Your task to perform on an android device: turn notification dots on Image 0: 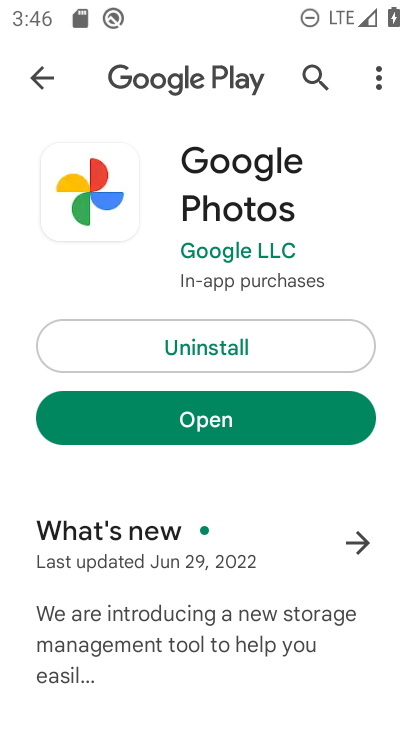
Step 0: press home button
Your task to perform on an android device: turn notification dots on Image 1: 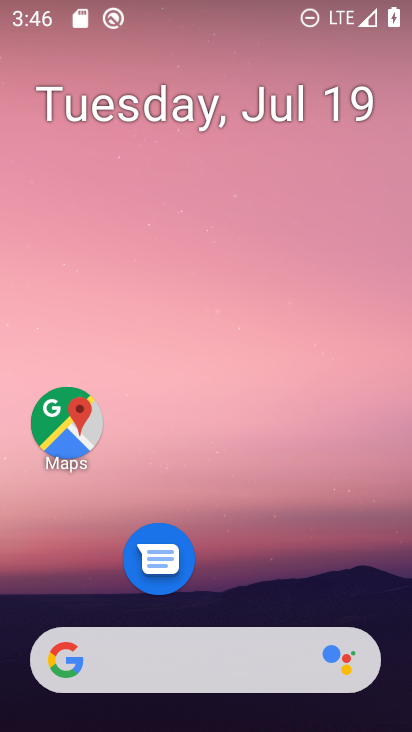
Step 1: drag from (189, 643) to (301, 288)
Your task to perform on an android device: turn notification dots on Image 2: 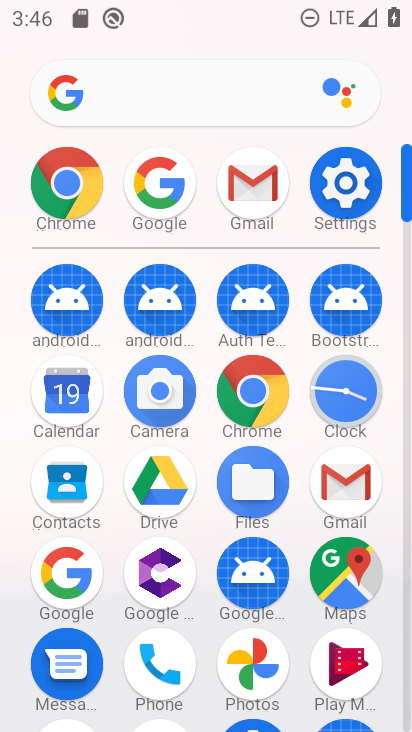
Step 2: click (332, 197)
Your task to perform on an android device: turn notification dots on Image 3: 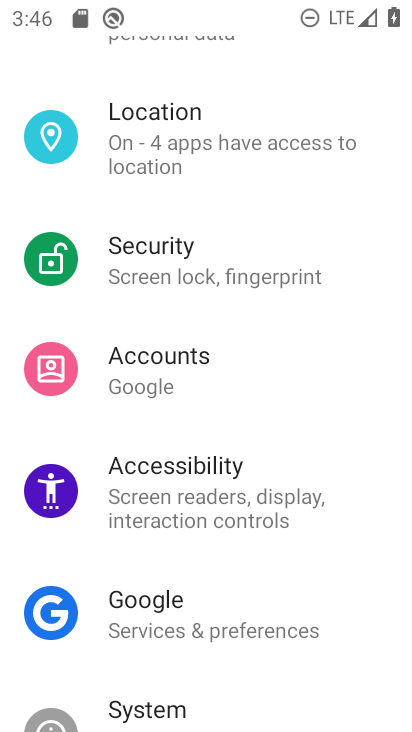
Step 3: drag from (202, 217) to (228, 690)
Your task to perform on an android device: turn notification dots on Image 4: 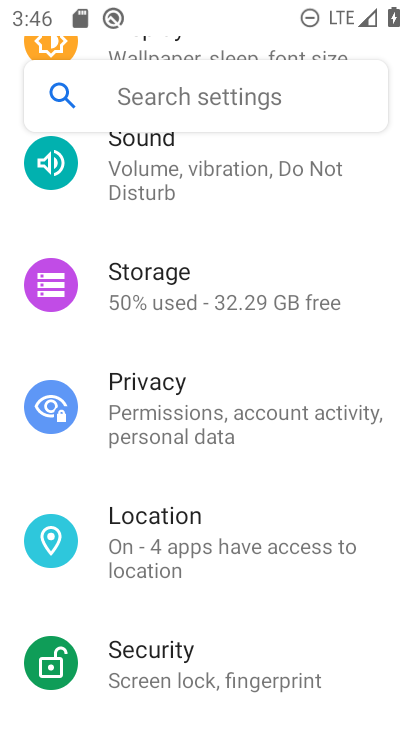
Step 4: drag from (258, 297) to (226, 696)
Your task to perform on an android device: turn notification dots on Image 5: 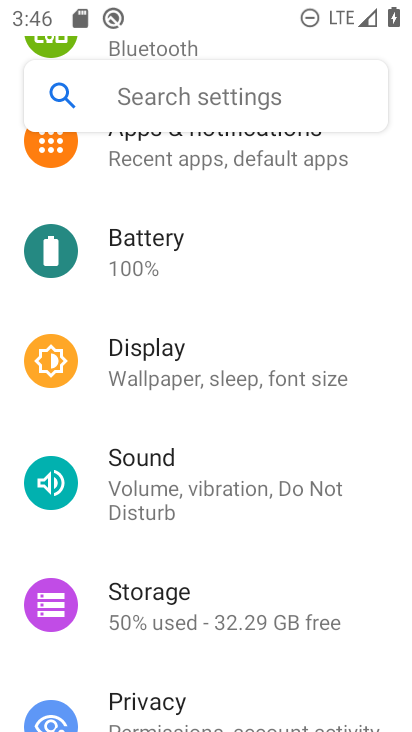
Step 5: click (238, 160)
Your task to perform on an android device: turn notification dots on Image 6: 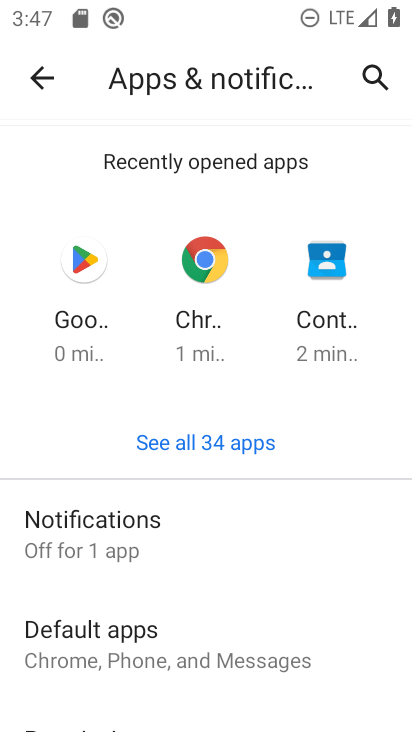
Step 6: click (172, 522)
Your task to perform on an android device: turn notification dots on Image 7: 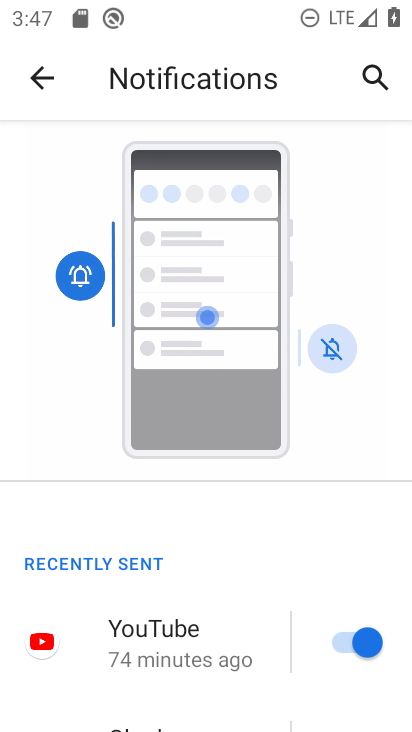
Step 7: drag from (178, 625) to (291, 128)
Your task to perform on an android device: turn notification dots on Image 8: 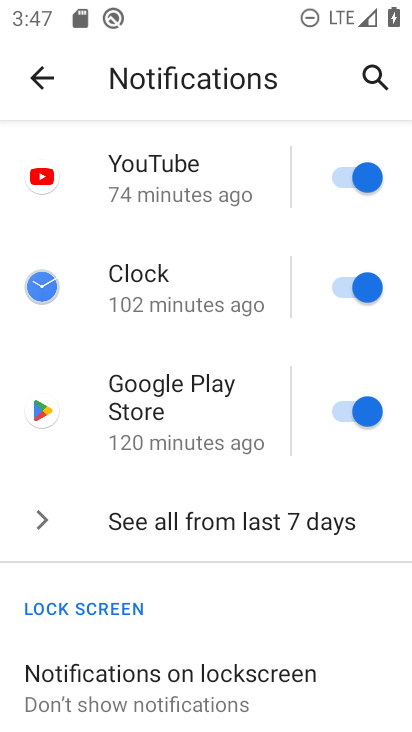
Step 8: drag from (180, 612) to (265, 191)
Your task to perform on an android device: turn notification dots on Image 9: 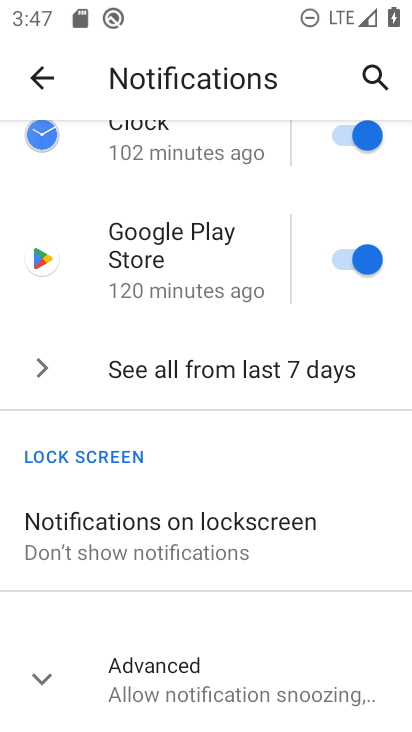
Step 9: click (138, 701)
Your task to perform on an android device: turn notification dots on Image 10: 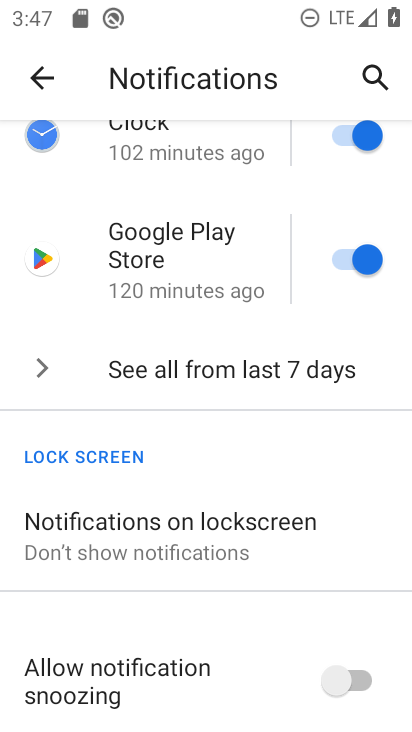
Step 10: task complete